Your task to perform on an android device: toggle show notifications on the lock screen Image 0: 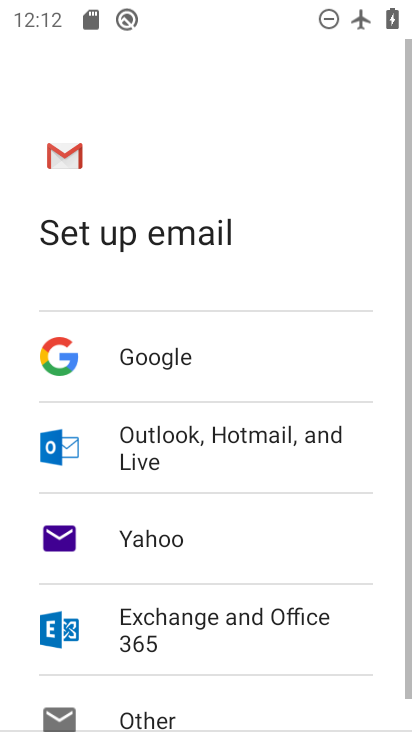
Step 0: press home button
Your task to perform on an android device: toggle show notifications on the lock screen Image 1: 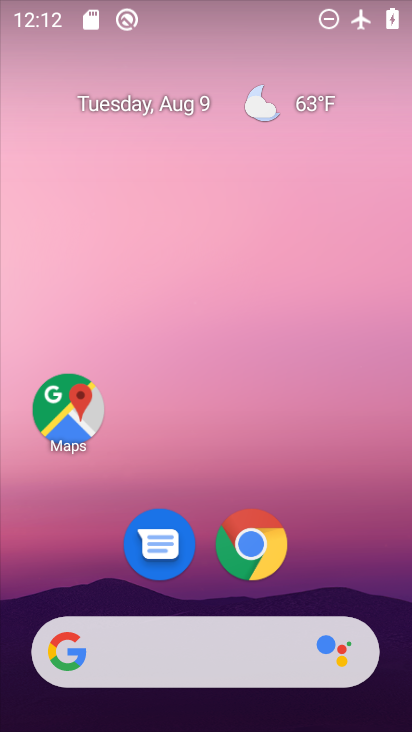
Step 1: drag from (187, 671) to (299, 172)
Your task to perform on an android device: toggle show notifications on the lock screen Image 2: 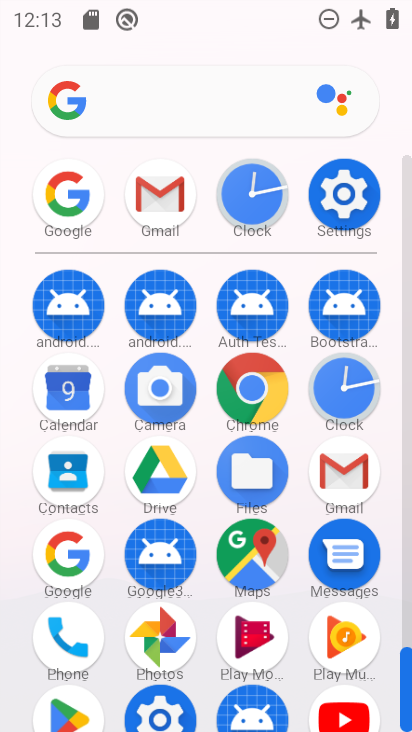
Step 2: click (345, 195)
Your task to perform on an android device: toggle show notifications on the lock screen Image 3: 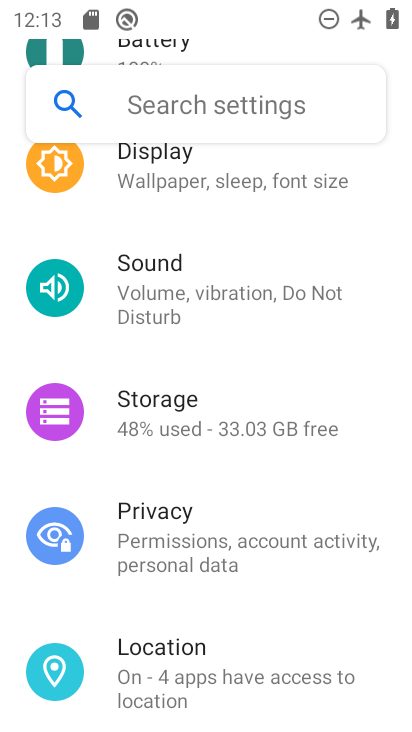
Step 3: drag from (221, 259) to (205, 430)
Your task to perform on an android device: toggle show notifications on the lock screen Image 4: 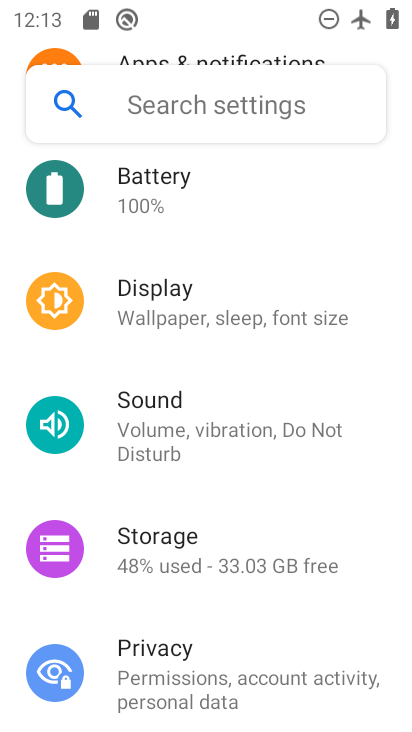
Step 4: drag from (185, 330) to (184, 483)
Your task to perform on an android device: toggle show notifications on the lock screen Image 5: 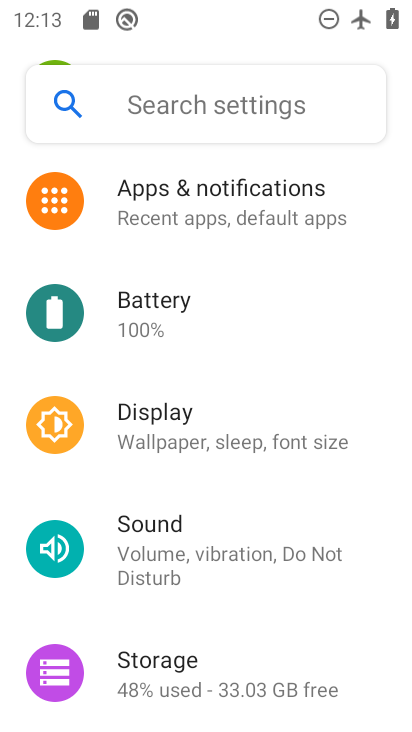
Step 5: click (178, 192)
Your task to perform on an android device: toggle show notifications on the lock screen Image 6: 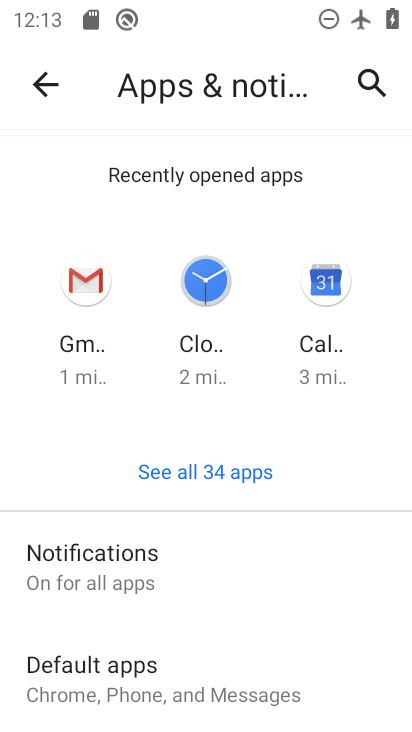
Step 6: click (136, 576)
Your task to perform on an android device: toggle show notifications on the lock screen Image 7: 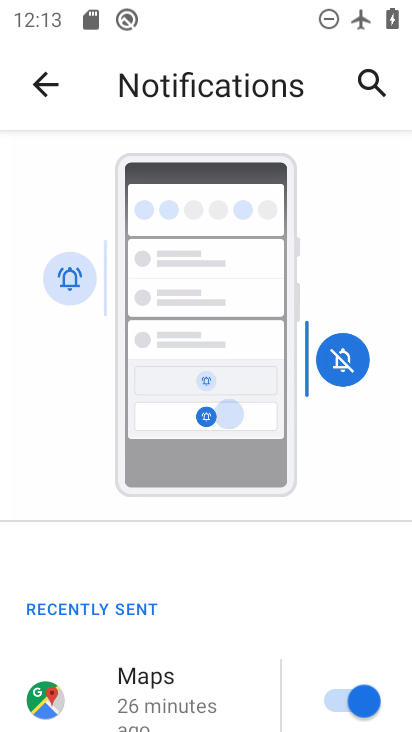
Step 7: drag from (169, 617) to (265, 190)
Your task to perform on an android device: toggle show notifications on the lock screen Image 8: 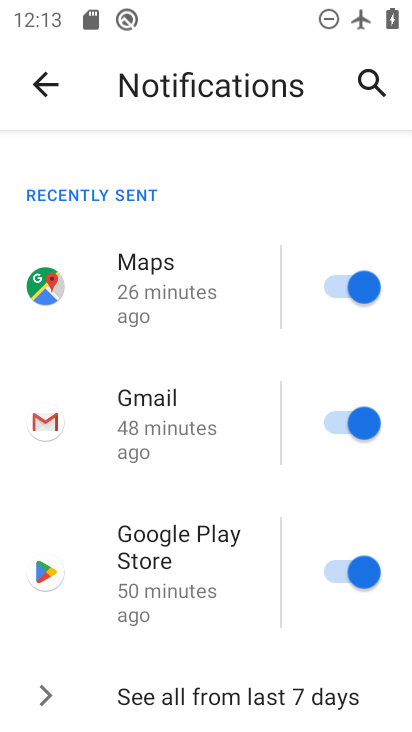
Step 8: drag from (153, 646) to (247, 250)
Your task to perform on an android device: toggle show notifications on the lock screen Image 9: 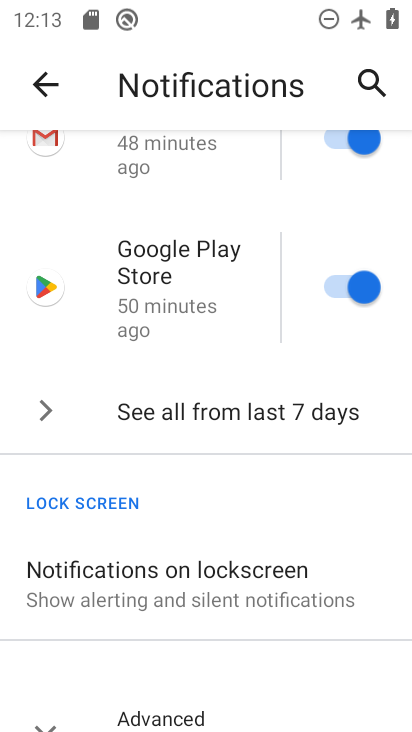
Step 9: click (217, 587)
Your task to perform on an android device: toggle show notifications on the lock screen Image 10: 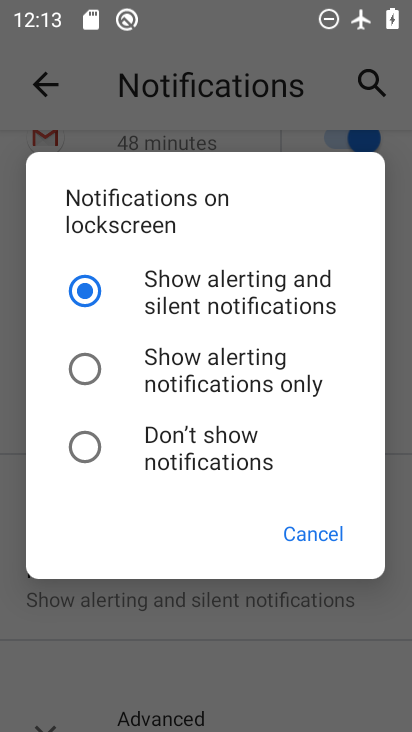
Step 10: click (96, 449)
Your task to perform on an android device: toggle show notifications on the lock screen Image 11: 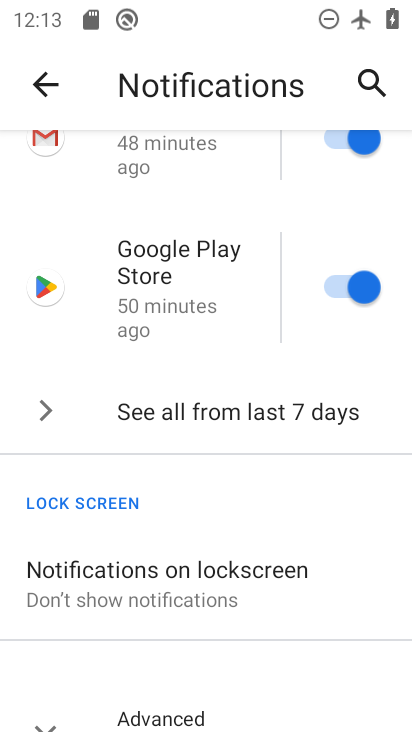
Step 11: task complete